Your task to perform on an android device: Open calendar and show me the second week of next month Image 0: 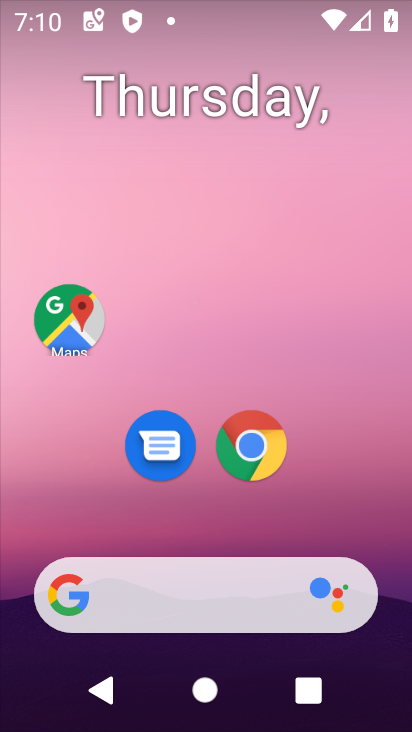
Step 0: drag from (333, 483) to (226, 55)
Your task to perform on an android device: Open calendar and show me the second week of next month Image 1: 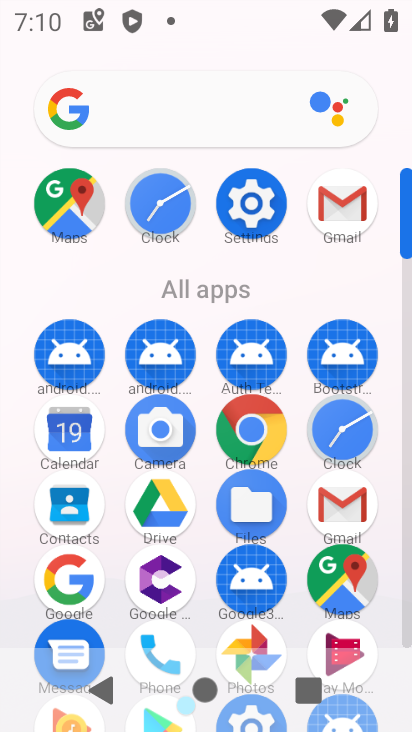
Step 1: click (56, 426)
Your task to perform on an android device: Open calendar and show me the second week of next month Image 2: 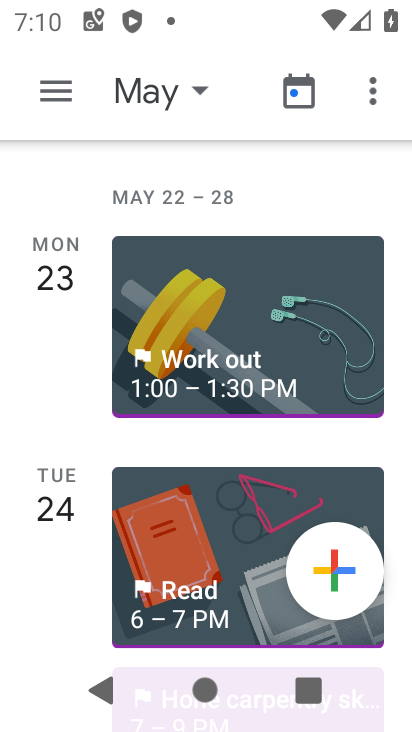
Step 2: click (60, 87)
Your task to perform on an android device: Open calendar and show me the second week of next month Image 3: 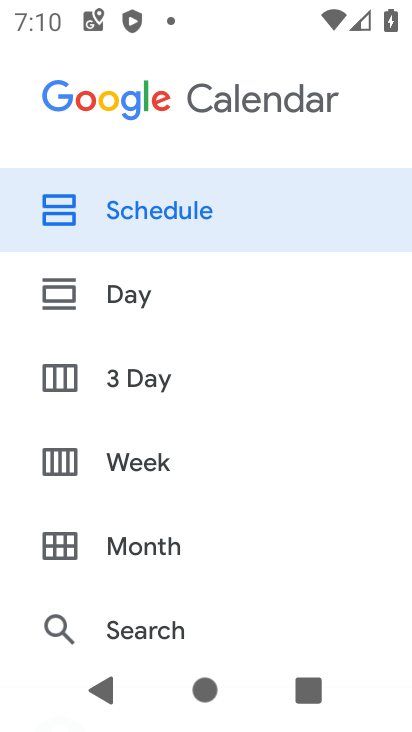
Step 3: click (156, 466)
Your task to perform on an android device: Open calendar and show me the second week of next month Image 4: 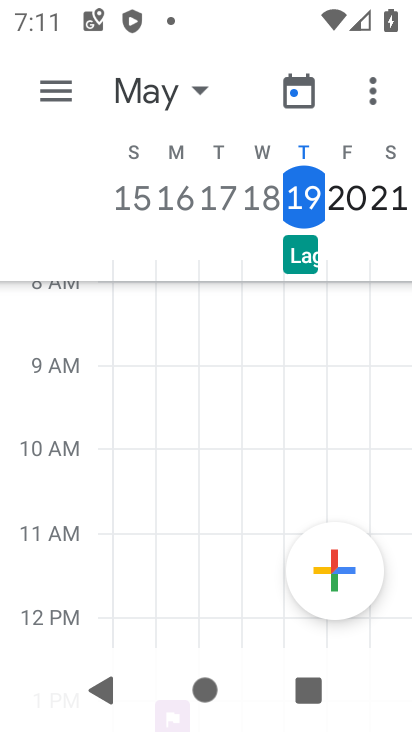
Step 4: click (197, 86)
Your task to perform on an android device: Open calendar and show me the second week of next month Image 5: 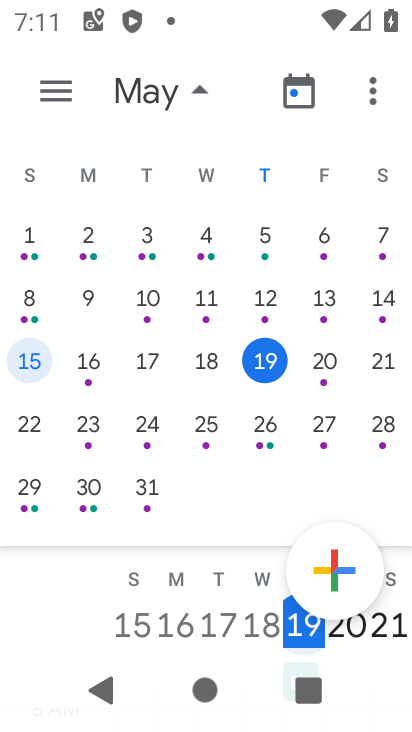
Step 5: drag from (369, 270) to (18, 281)
Your task to perform on an android device: Open calendar and show me the second week of next month Image 6: 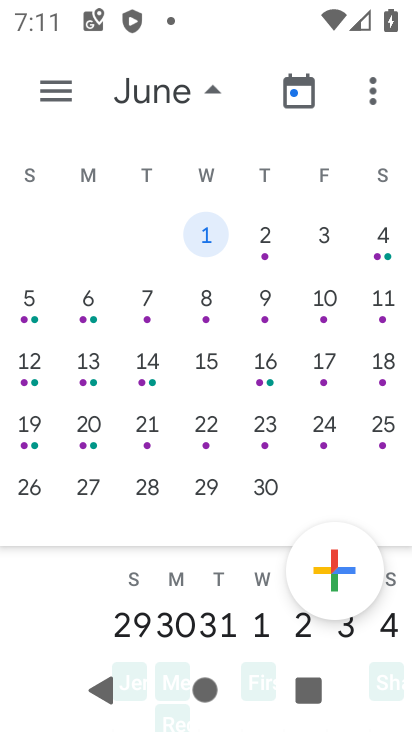
Step 6: click (197, 303)
Your task to perform on an android device: Open calendar and show me the second week of next month Image 7: 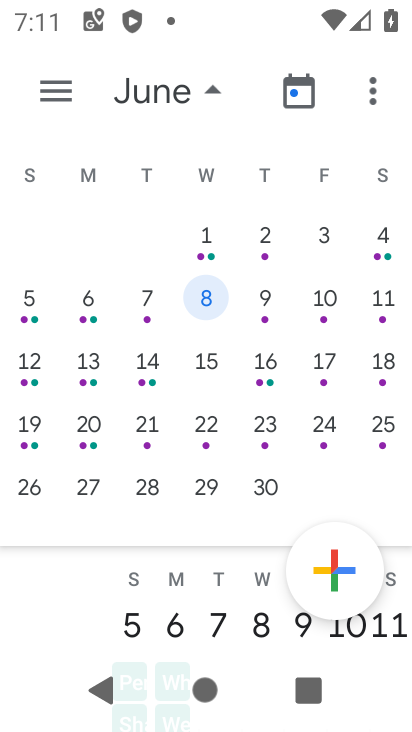
Step 7: task complete